Your task to perform on an android device: turn notification dots off Image 0: 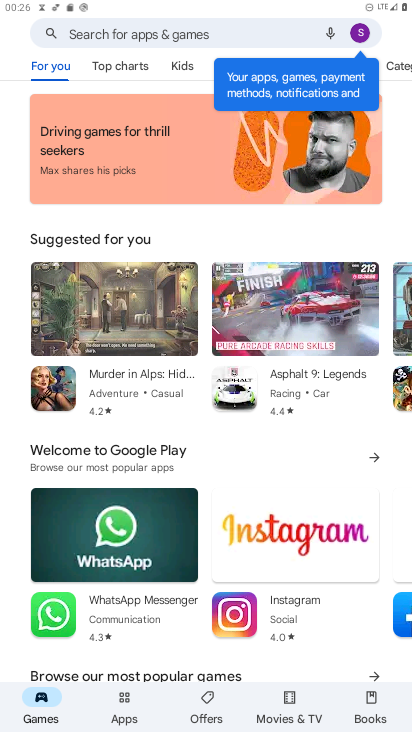
Step 0: press home button
Your task to perform on an android device: turn notification dots off Image 1: 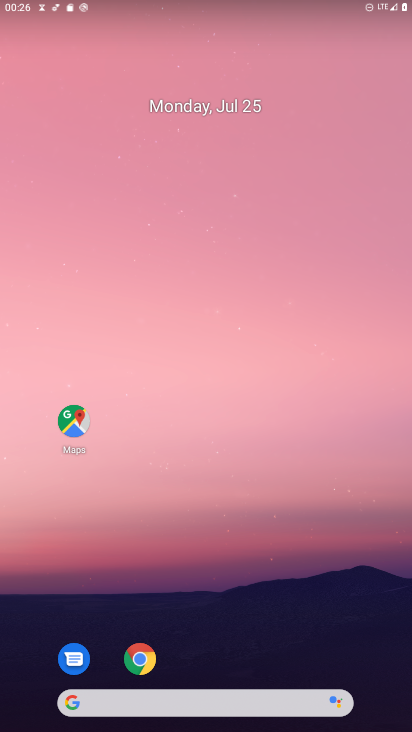
Step 1: drag from (240, 664) to (236, 144)
Your task to perform on an android device: turn notification dots off Image 2: 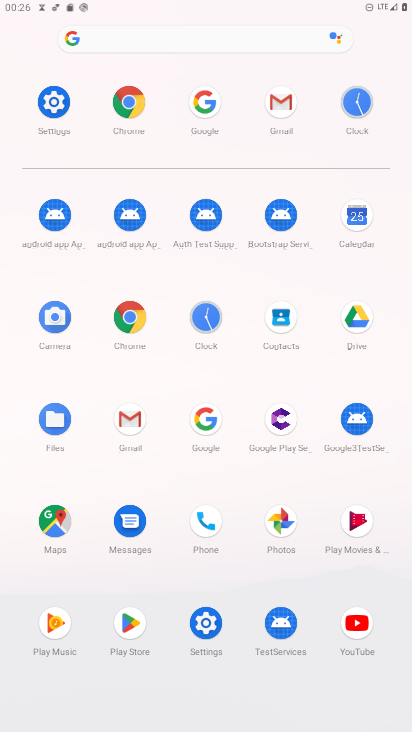
Step 2: click (44, 84)
Your task to perform on an android device: turn notification dots off Image 3: 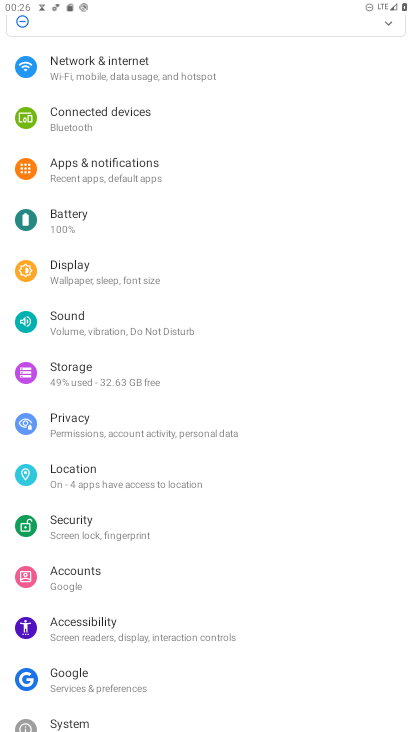
Step 3: drag from (142, 158) to (76, 725)
Your task to perform on an android device: turn notification dots off Image 4: 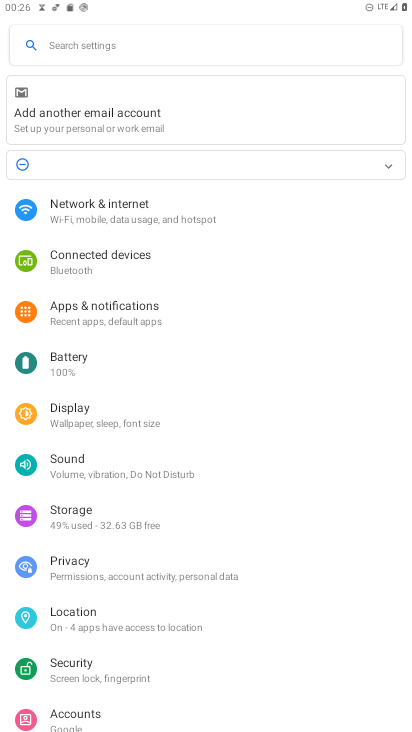
Step 4: click (190, 34)
Your task to perform on an android device: turn notification dots off Image 5: 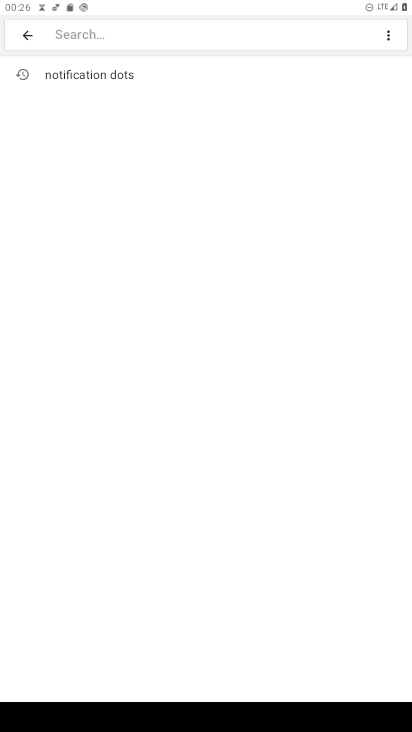
Step 5: click (67, 82)
Your task to perform on an android device: turn notification dots off Image 6: 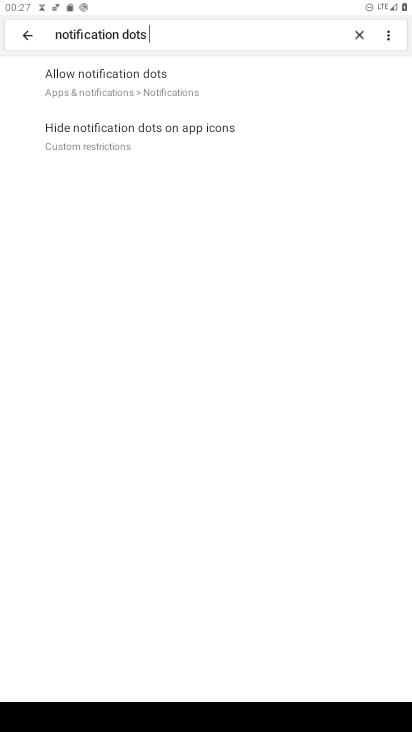
Step 6: click (140, 92)
Your task to perform on an android device: turn notification dots off Image 7: 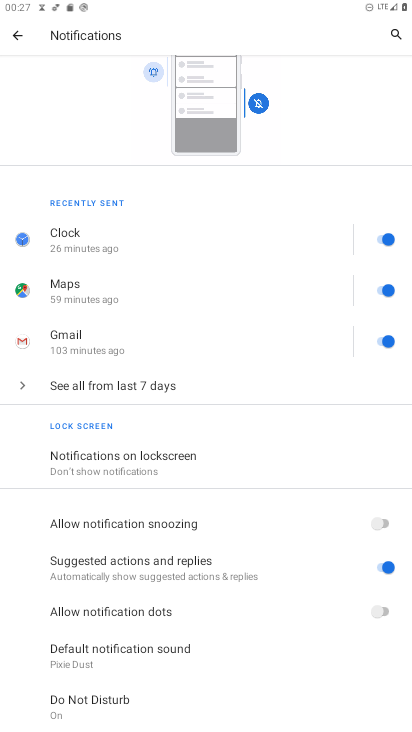
Step 7: task complete